Your task to perform on an android device: Go to ESPN.com Image 0: 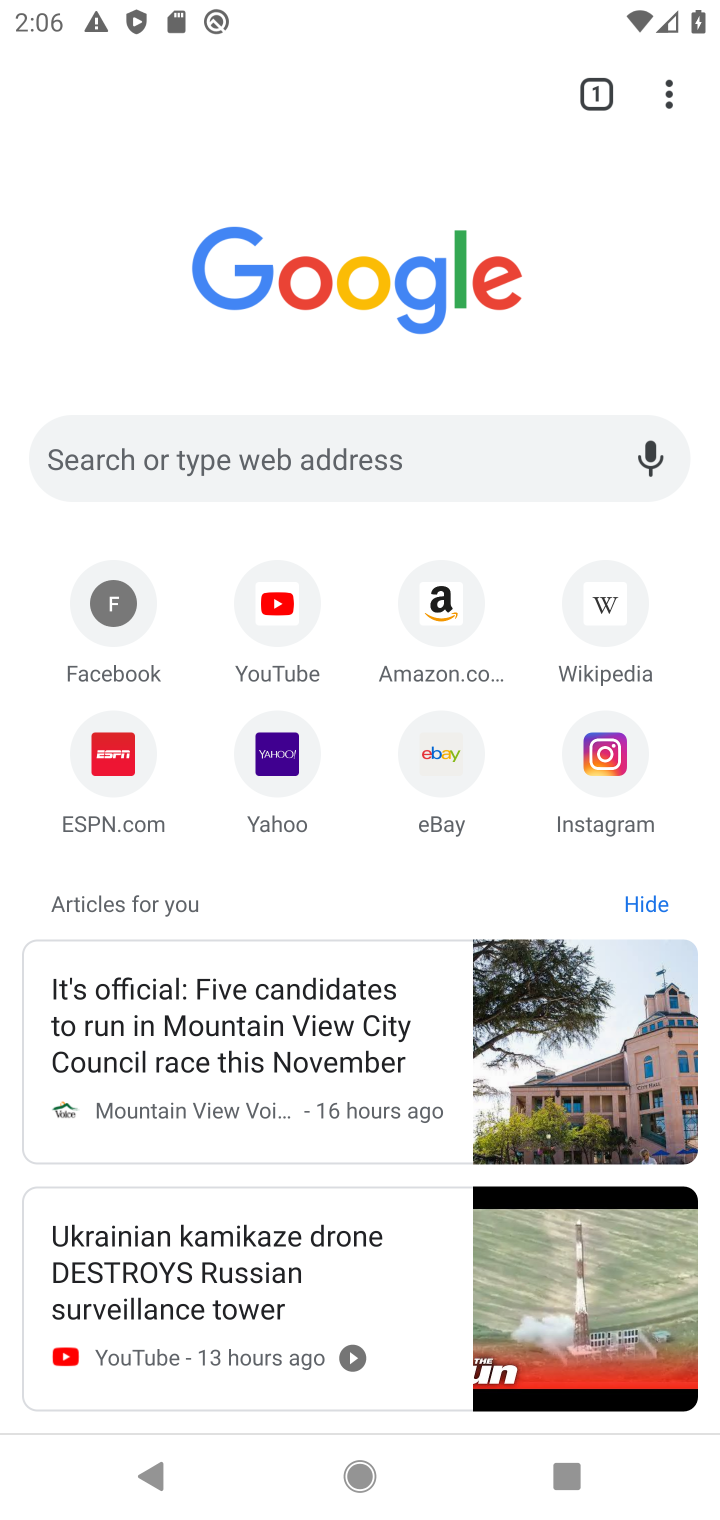
Step 0: click (113, 477)
Your task to perform on an android device: Go to ESPN.com Image 1: 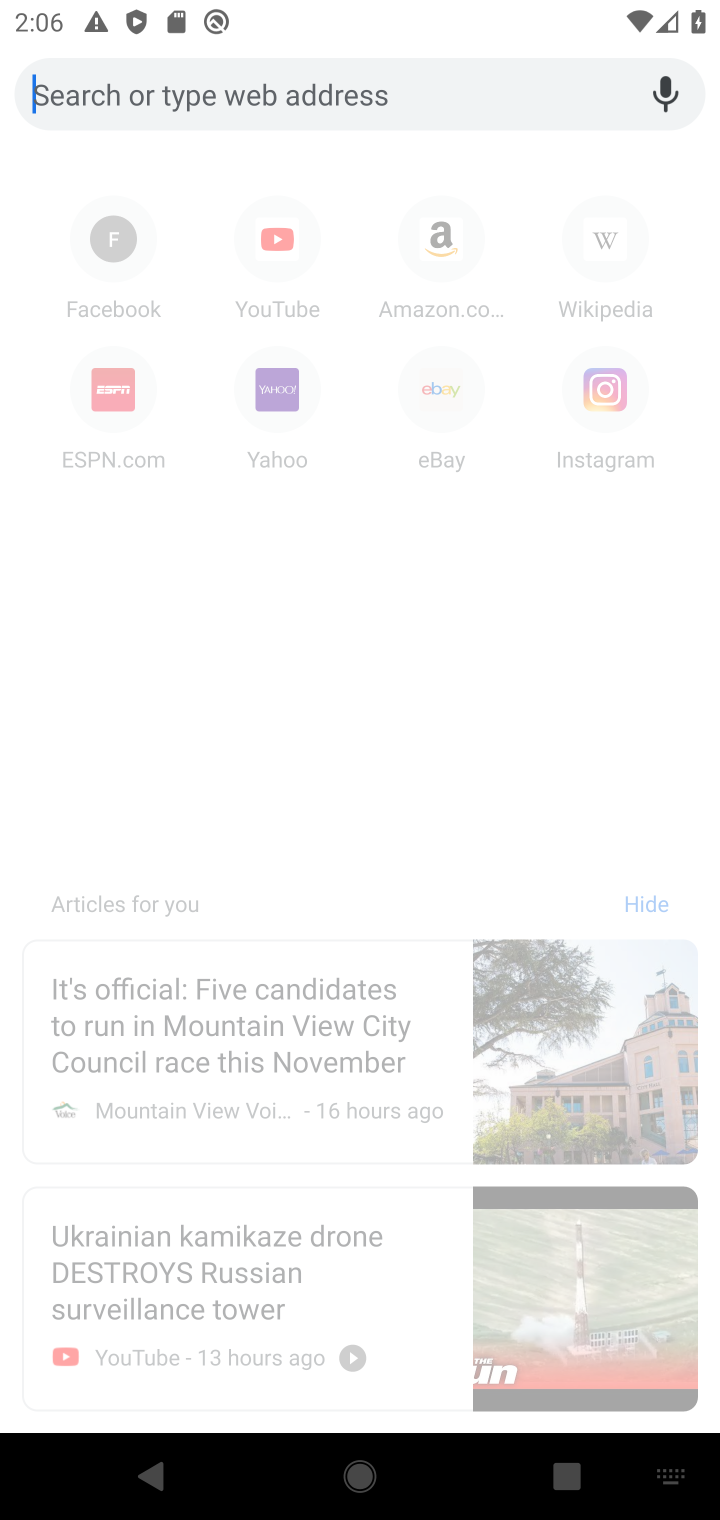
Step 1: type "ESPN.com"
Your task to perform on an android device: Go to ESPN.com Image 2: 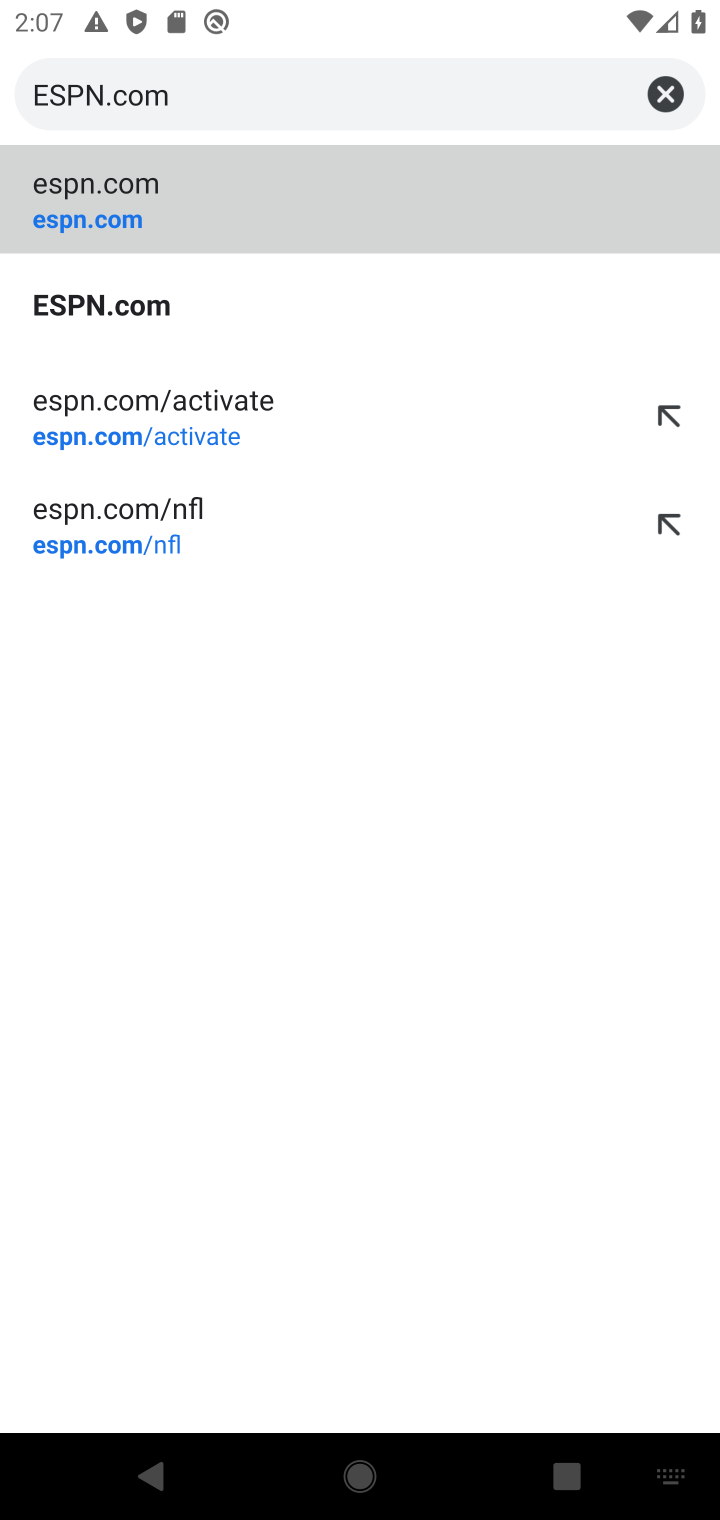
Step 2: click (89, 299)
Your task to perform on an android device: Go to ESPN.com Image 3: 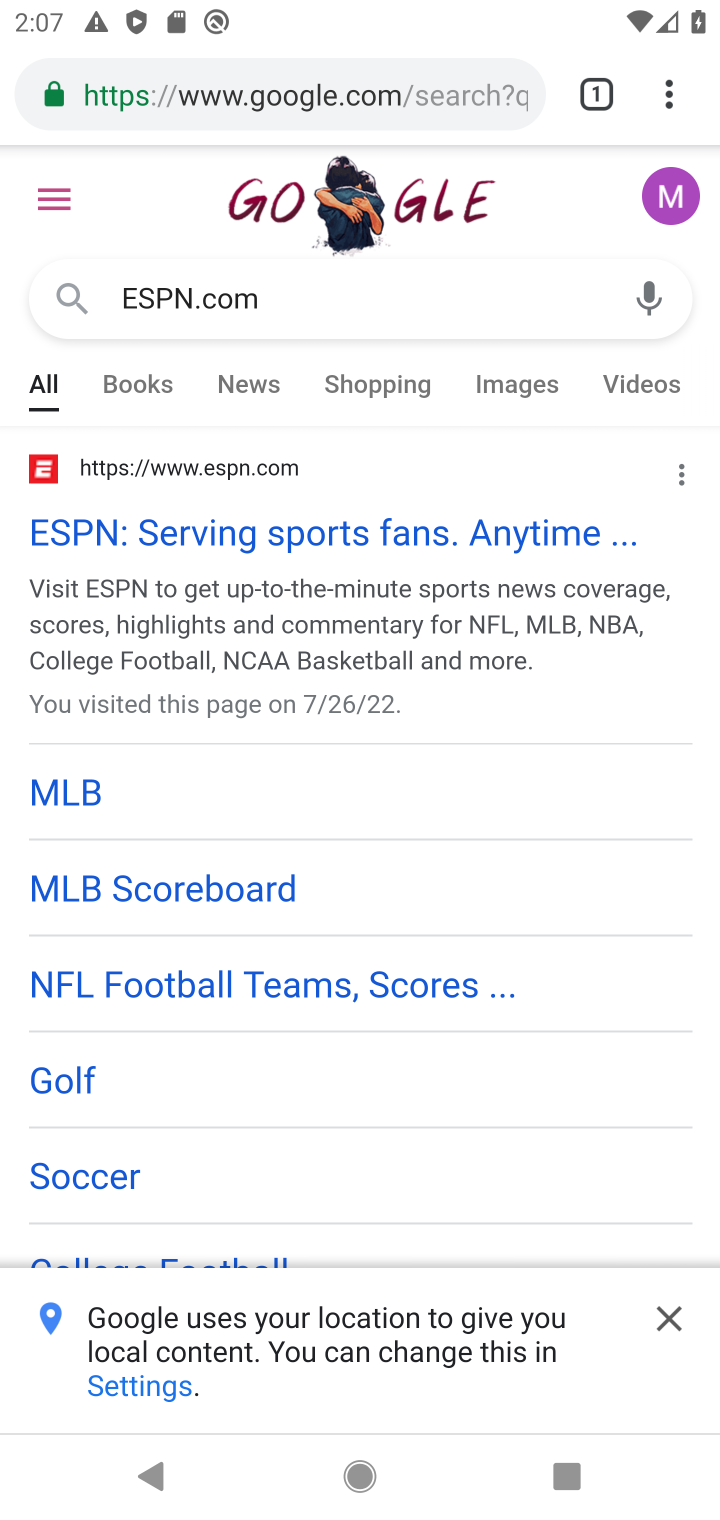
Step 3: task complete